Your task to perform on an android device: find snoozed emails in the gmail app Image 0: 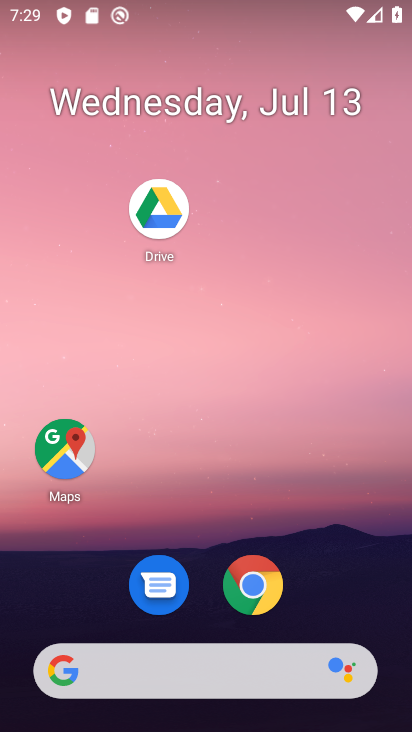
Step 0: drag from (212, 674) to (293, 207)
Your task to perform on an android device: find snoozed emails in the gmail app Image 1: 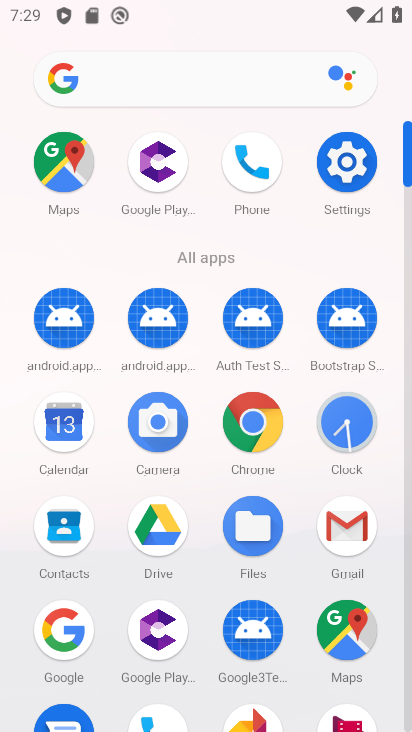
Step 1: click (351, 541)
Your task to perform on an android device: find snoozed emails in the gmail app Image 2: 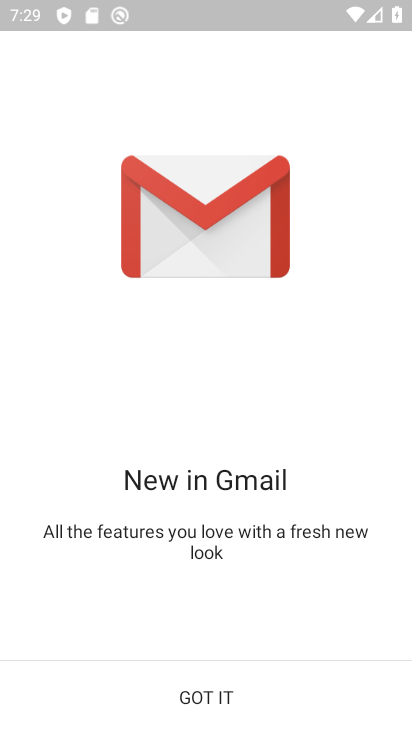
Step 2: click (204, 699)
Your task to perform on an android device: find snoozed emails in the gmail app Image 3: 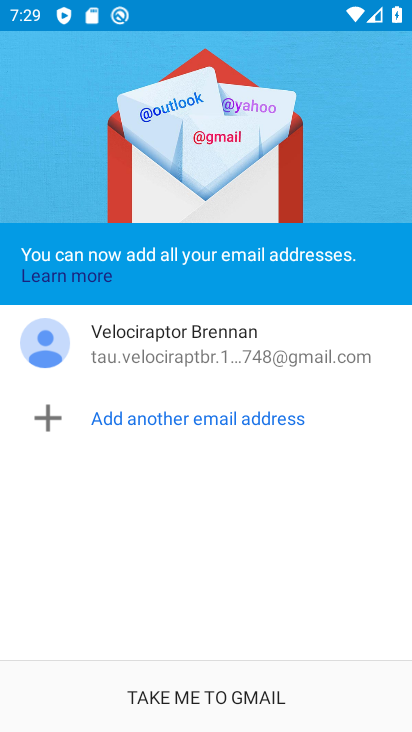
Step 3: click (208, 690)
Your task to perform on an android device: find snoozed emails in the gmail app Image 4: 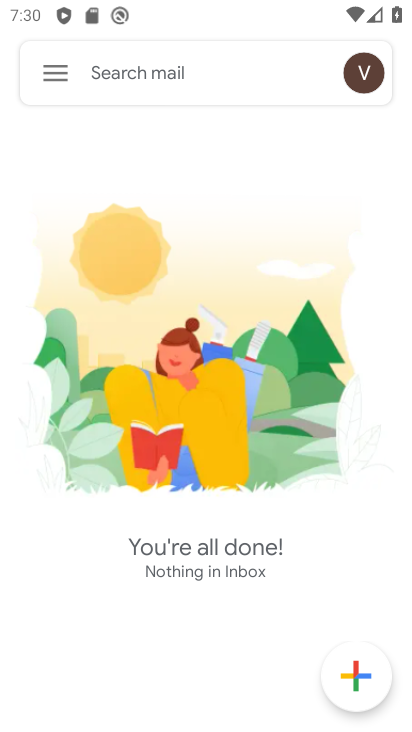
Step 4: click (60, 73)
Your task to perform on an android device: find snoozed emails in the gmail app Image 5: 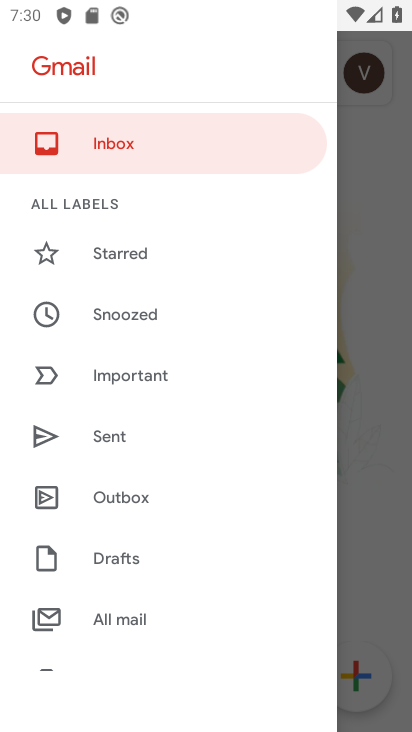
Step 5: click (125, 314)
Your task to perform on an android device: find snoozed emails in the gmail app Image 6: 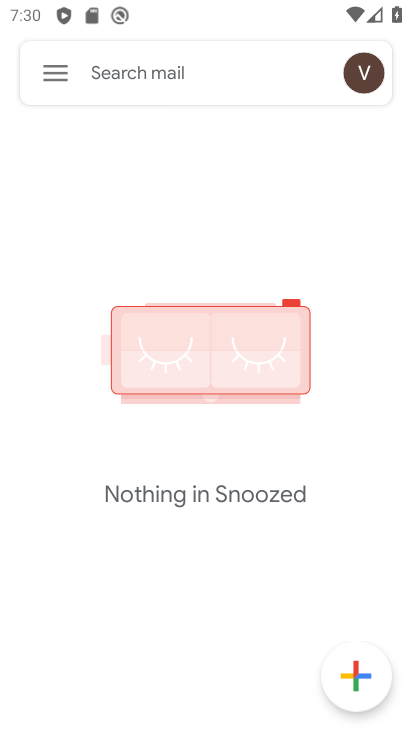
Step 6: task complete